Your task to perform on an android device: Open calendar and show me the second week of next month Image 0: 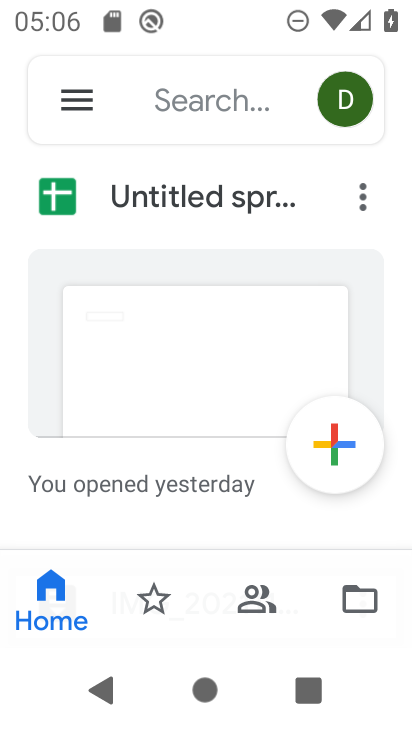
Step 0: press home button
Your task to perform on an android device: Open calendar and show me the second week of next month Image 1: 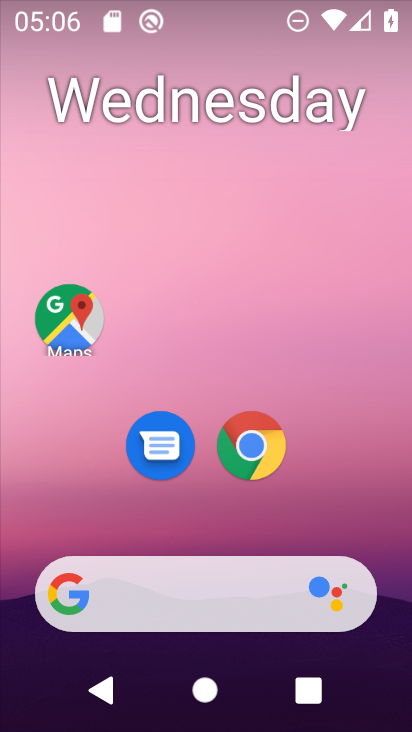
Step 1: click (165, 135)
Your task to perform on an android device: Open calendar and show me the second week of next month Image 2: 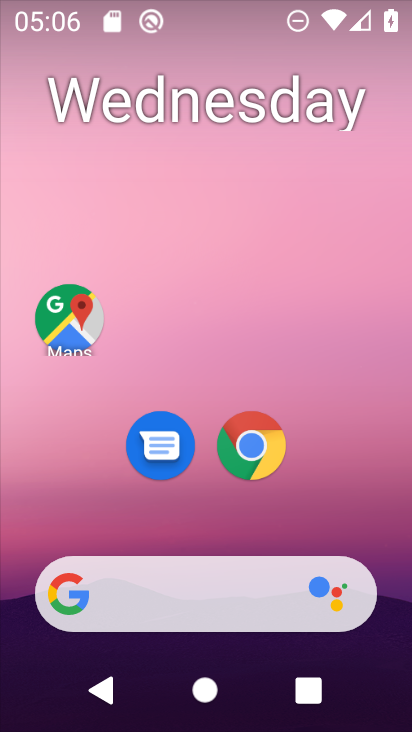
Step 2: click (263, 112)
Your task to perform on an android device: Open calendar and show me the second week of next month Image 3: 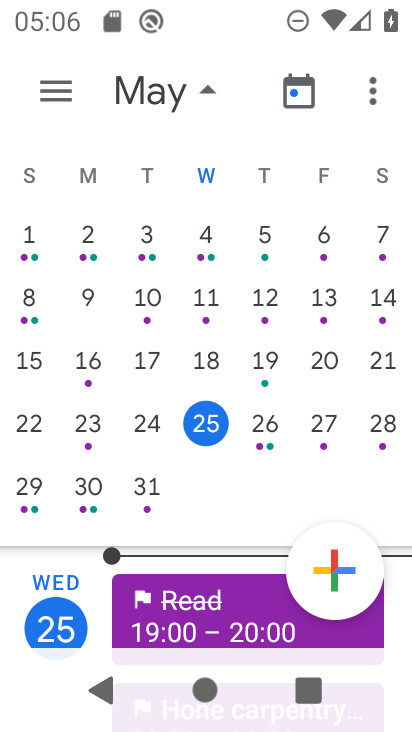
Step 3: click (188, 98)
Your task to perform on an android device: Open calendar and show me the second week of next month Image 4: 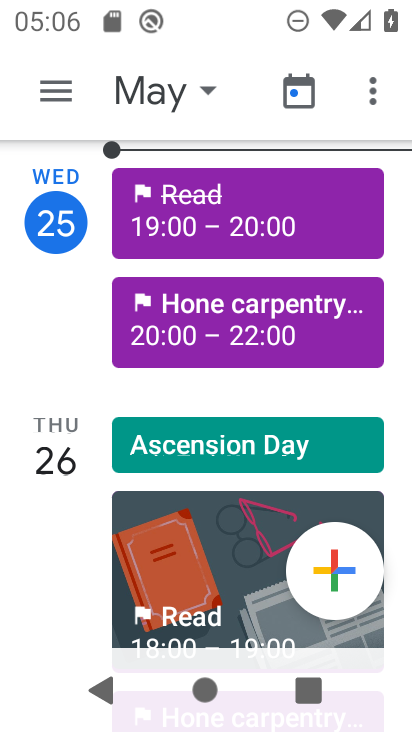
Step 4: click (187, 104)
Your task to perform on an android device: Open calendar and show me the second week of next month Image 5: 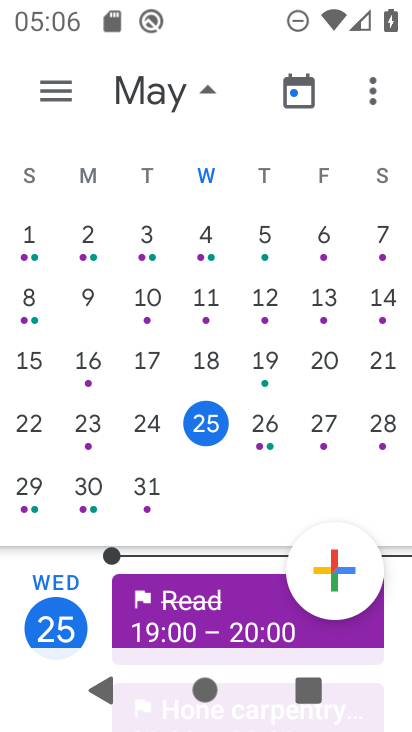
Step 5: drag from (373, 502) to (37, 474)
Your task to perform on an android device: Open calendar and show me the second week of next month Image 6: 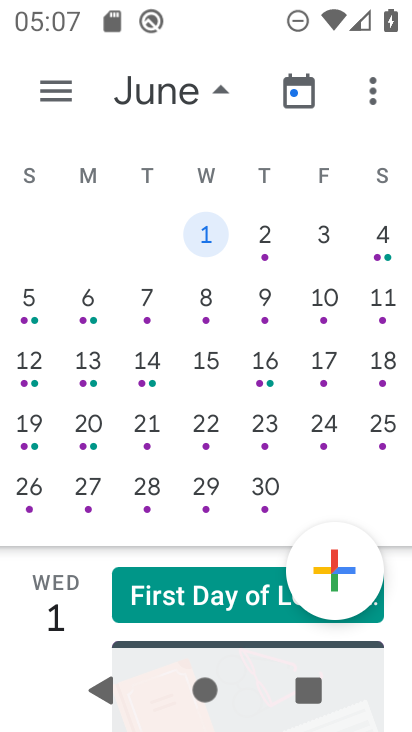
Step 6: click (217, 295)
Your task to perform on an android device: Open calendar and show me the second week of next month Image 7: 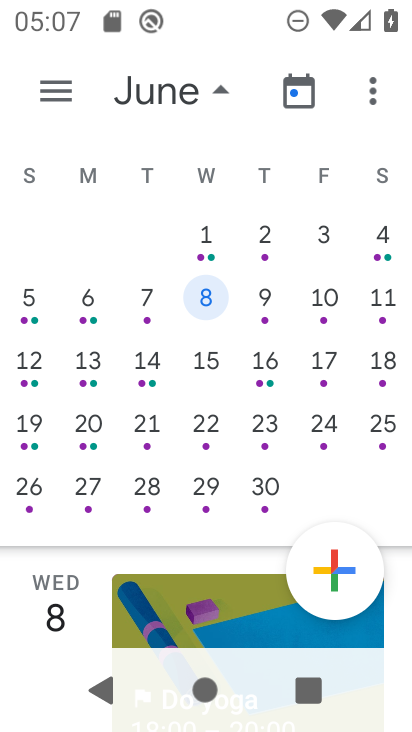
Step 7: task complete